Your task to perform on an android device: Open settings on Google Maps Image 0: 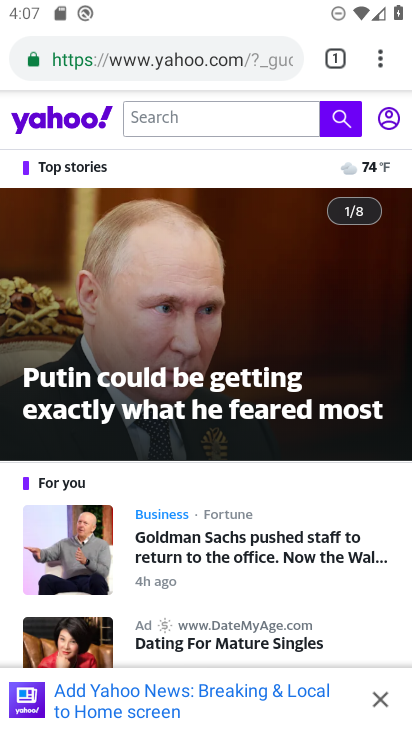
Step 0: press home button
Your task to perform on an android device: Open settings on Google Maps Image 1: 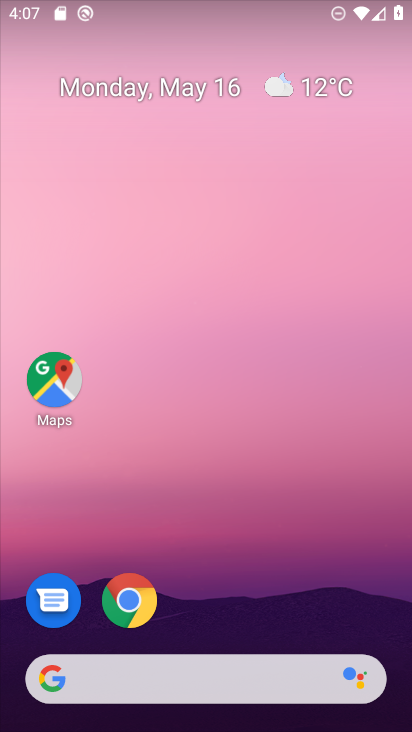
Step 1: click (55, 363)
Your task to perform on an android device: Open settings on Google Maps Image 2: 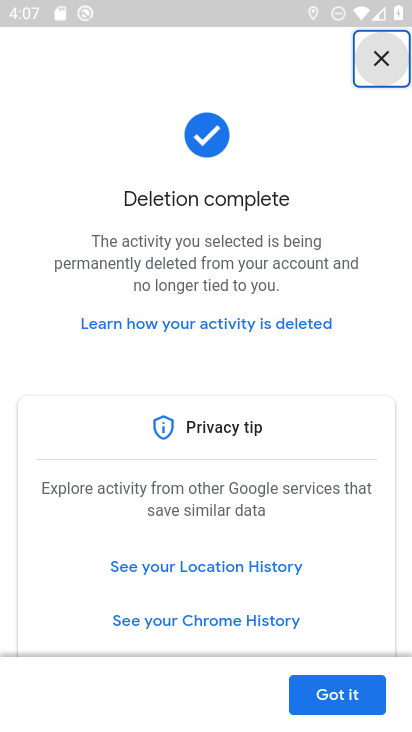
Step 2: click (323, 702)
Your task to perform on an android device: Open settings on Google Maps Image 3: 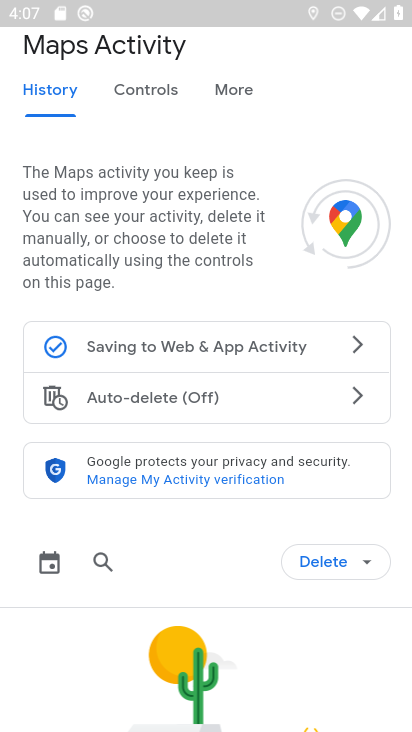
Step 3: task complete